Your task to perform on an android device: open wifi settings Image 0: 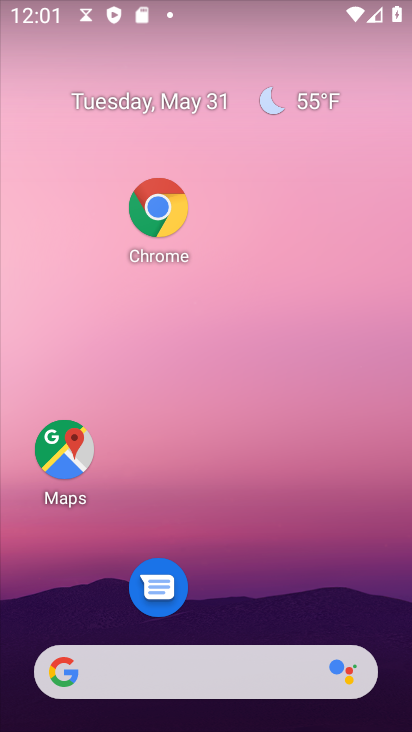
Step 0: drag from (248, 587) to (362, 58)
Your task to perform on an android device: open wifi settings Image 1: 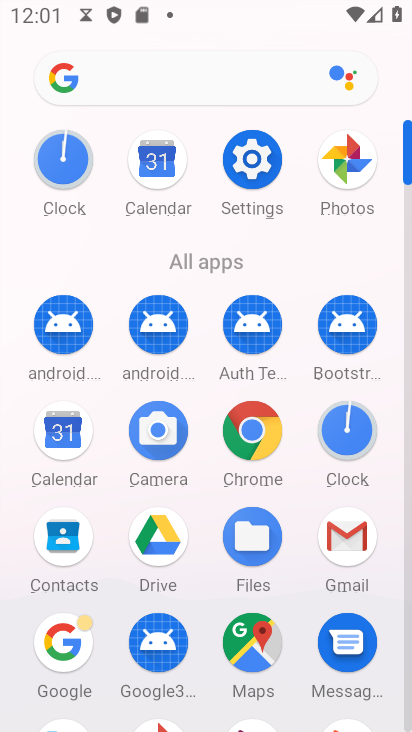
Step 1: click (257, 165)
Your task to perform on an android device: open wifi settings Image 2: 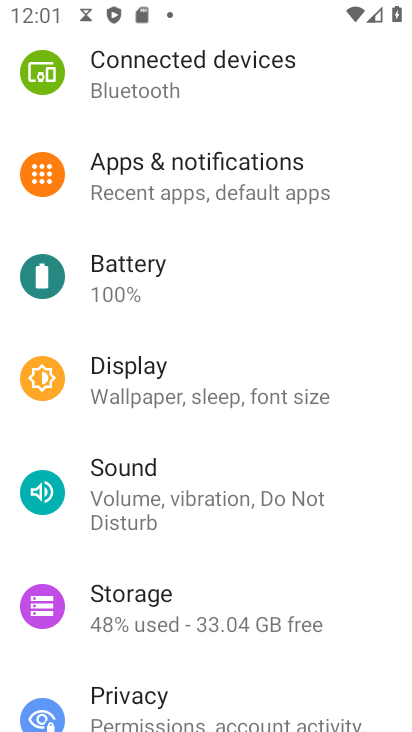
Step 2: drag from (284, 108) to (285, 329)
Your task to perform on an android device: open wifi settings Image 3: 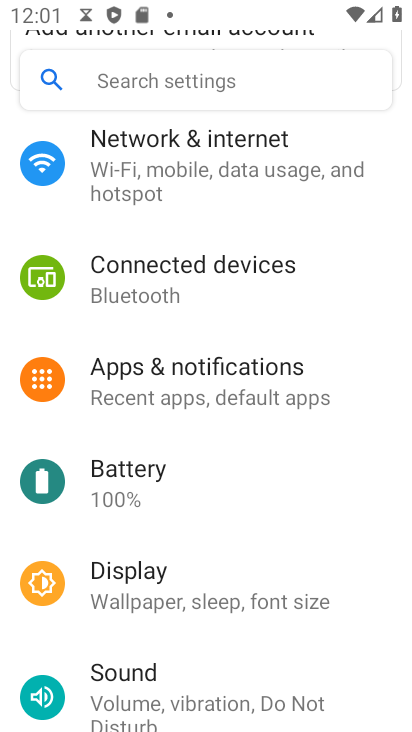
Step 3: click (222, 186)
Your task to perform on an android device: open wifi settings Image 4: 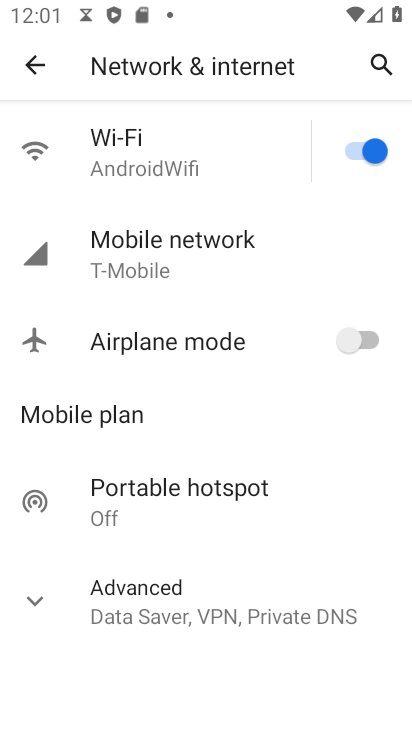
Step 4: click (222, 186)
Your task to perform on an android device: open wifi settings Image 5: 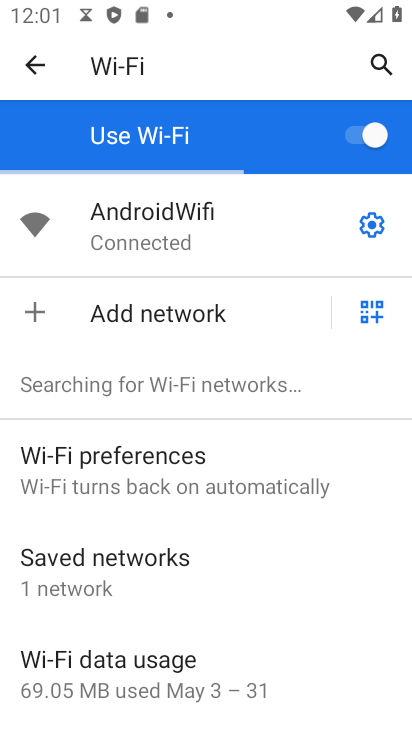
Step 5: task complete